Your task to perform on an android device: Show me popular videos on Youtube Image 0: 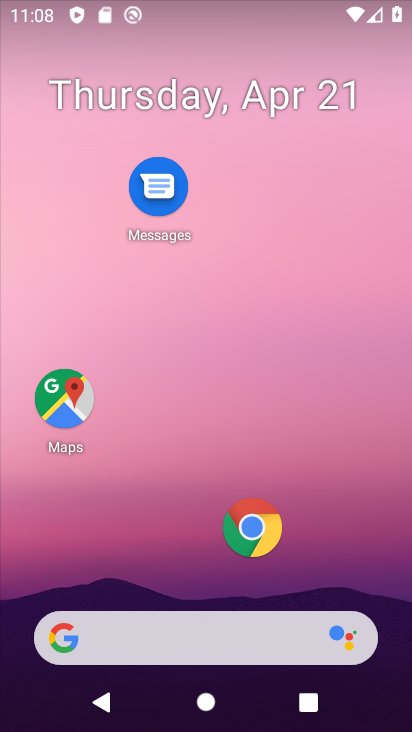
Step 0: drag from (177, 442) to (183, 10)
Your task to perform on an android device: Show me popular videos on Youtube Image 1: 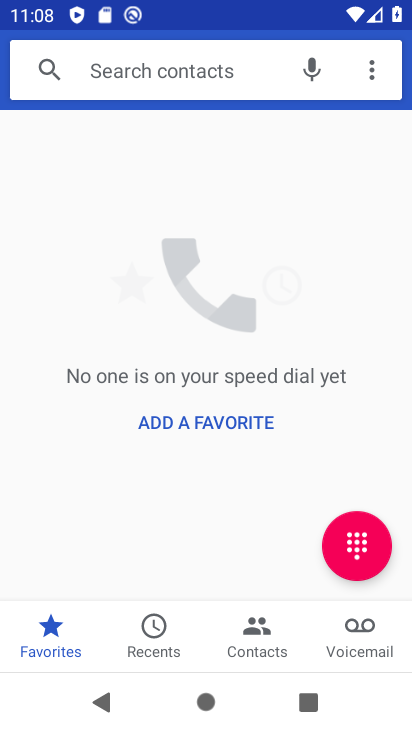
Step 1: press home button
Your task to perform on an android device: Show me popular videos on Youtube Image 2: 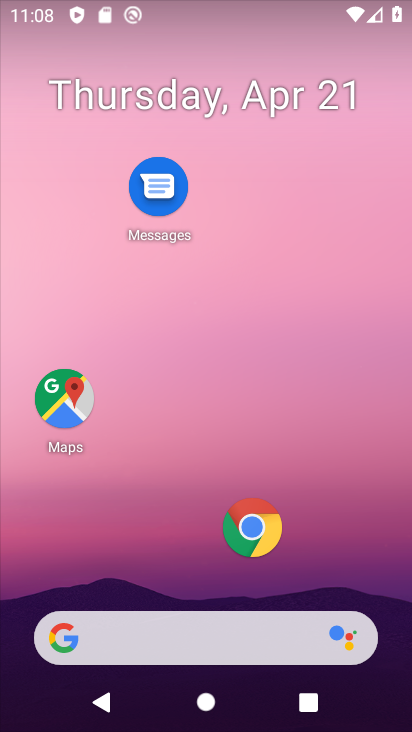
Step 2: drag from (168, 554) to (139, 6)
Your task to perform on an android device: Show me popular videos on Youtube Image 3: 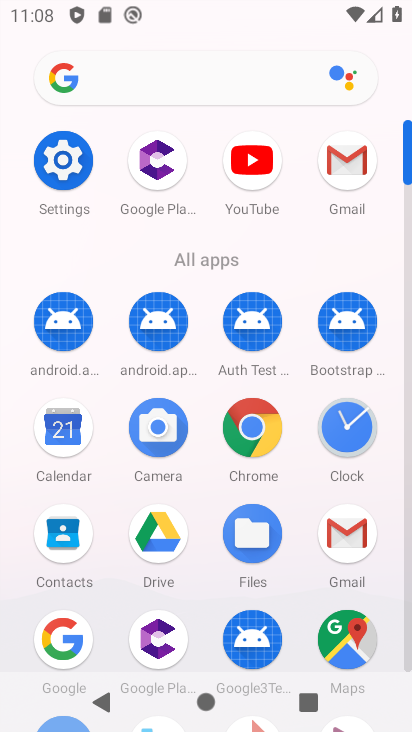
Step 3: click (251, 166)
Your task to perform on an android device: Show me popular videos on Youtube Image 4: 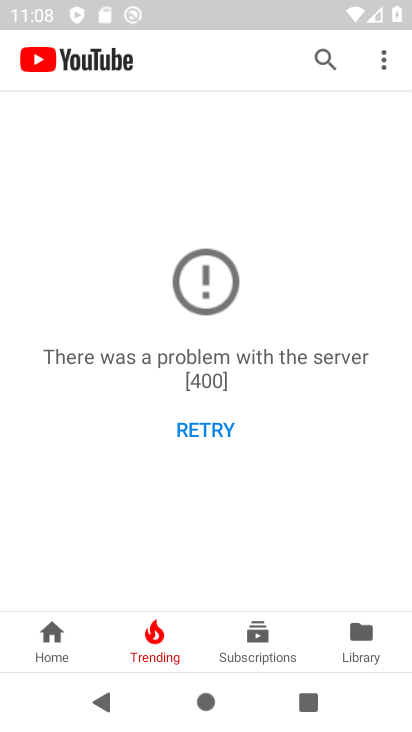
Step 4: click (268, 642)
Your task to perform on an android device: Show me popular videos on Youtube Image 5: 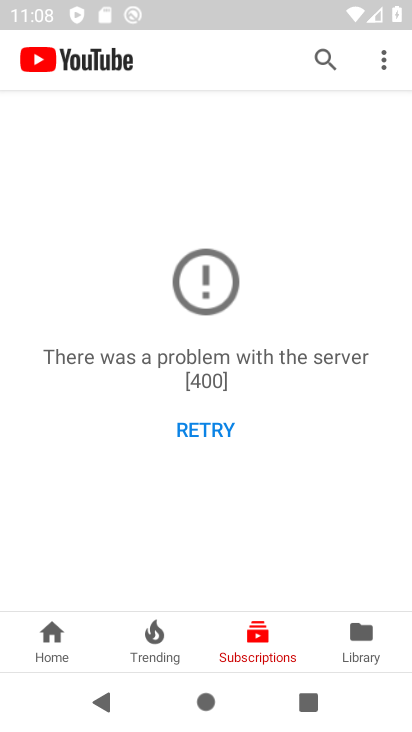
Step 5: click (368, 631)
Your task to perform on an android device: Show me popular videos on Youtube Image 6: 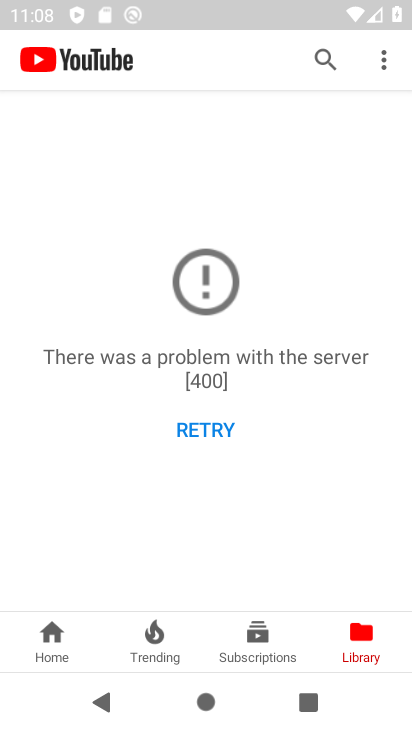
Step 6: task complete